Your task to perform on an android device: turn on improve location accuracy Image 0: 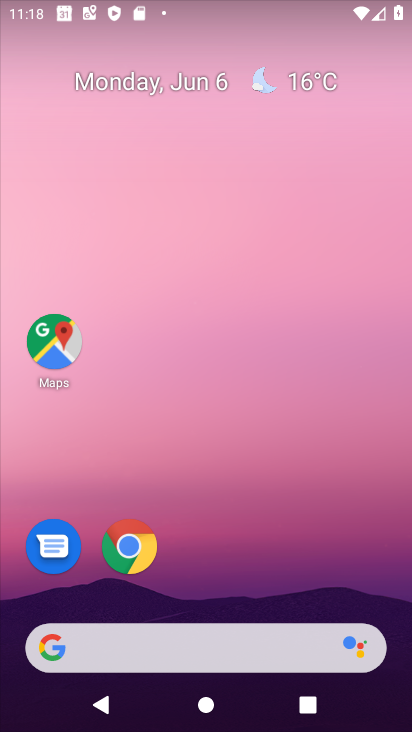
Step 0: drag from (242, 504) to (171, 47)
Your task to perform on an android device: turn on improve location accuracy Image 1: 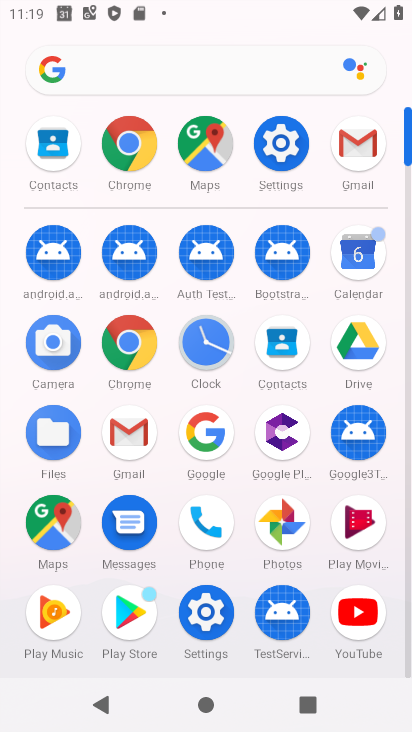
Step 1: click (280, 146)
Your task to perform on an android device: turn on improve location accuracy Image 2: 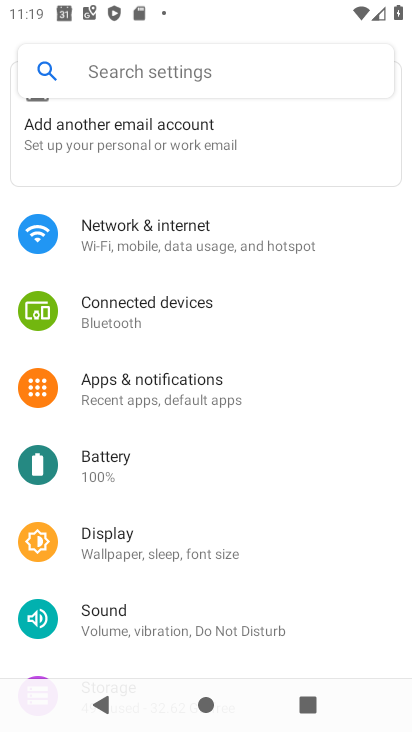
Step 2: drag from (153, 562) to (147, 143)
Your task to perform on an android device: turn on improve location accuracy Image 3: 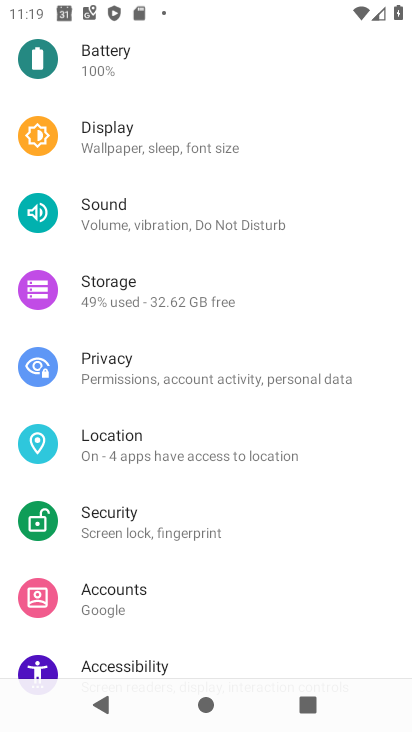
Step 3: click (142, 453)
Your task to perform on an android device: turn on improve location accuracy Image 4: 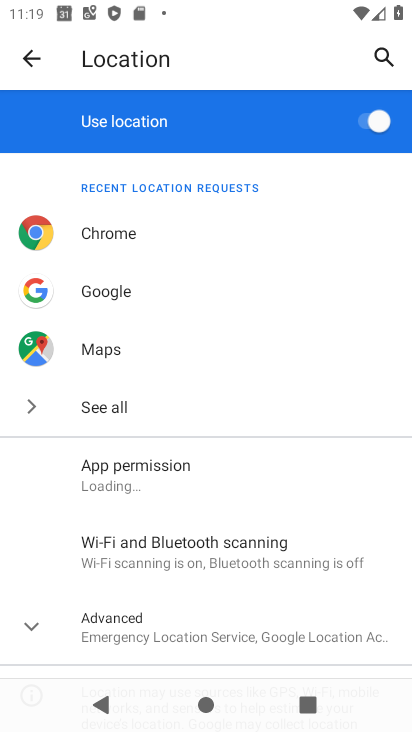
Step 4: drag from (295, 581) to (348, 180)
Your task to perform on an android device: turn on improve location accuracy Image 5: 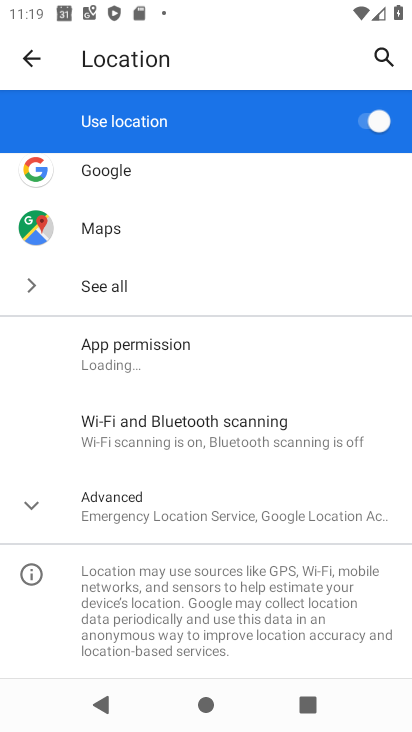
Step 5: click (199, 518)
Your task to perform on an android device: turn on improve location accuracy Image 6: 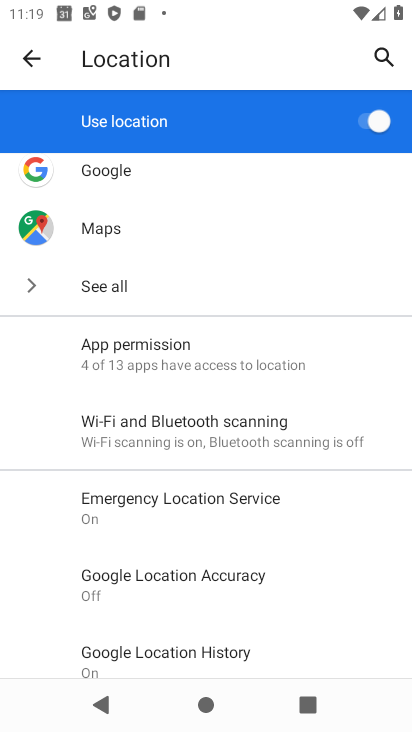
Step 6: click (246, 591)
Your task to perform on an android device: turn on improve location accuracy Image 7: 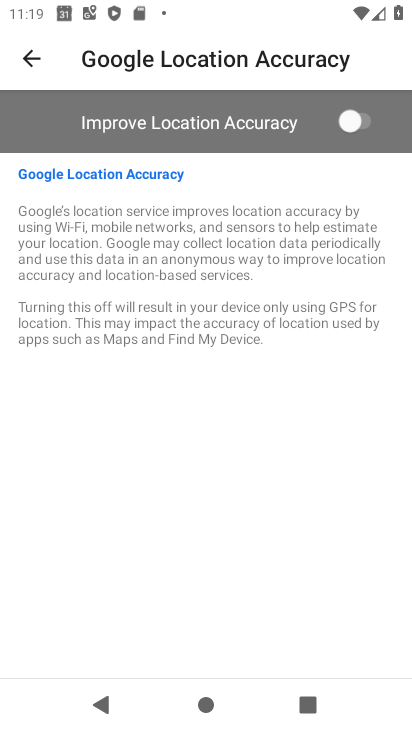
Step 7: click (364, 115)
Your task to perform on an android device: turn on improve location accuracy Image 8: 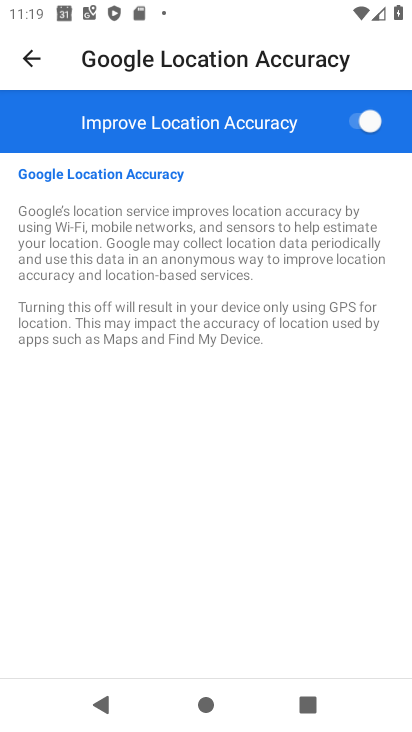
Step 8: task complete